Your task to perform on an android device: Open the phone app and click the voicemail tab. Image 0: 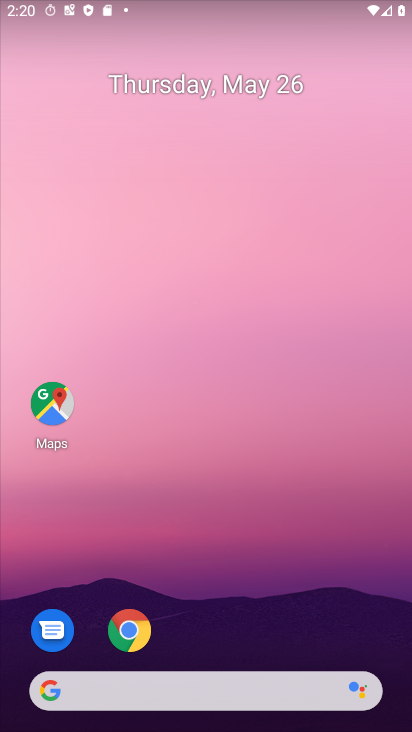
Step 0: drag from (231, 601) to (242, 198)
Your task to perform on an android device: Open the phone app and click the voicemail tab. Image 1: 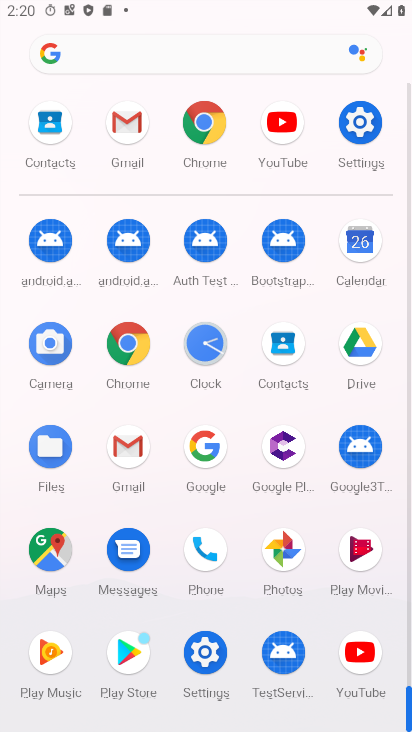
Step 1: click (208, 562)
Your task to perform on an android device: Open the phone app and click the voicemail tab. Image 2: 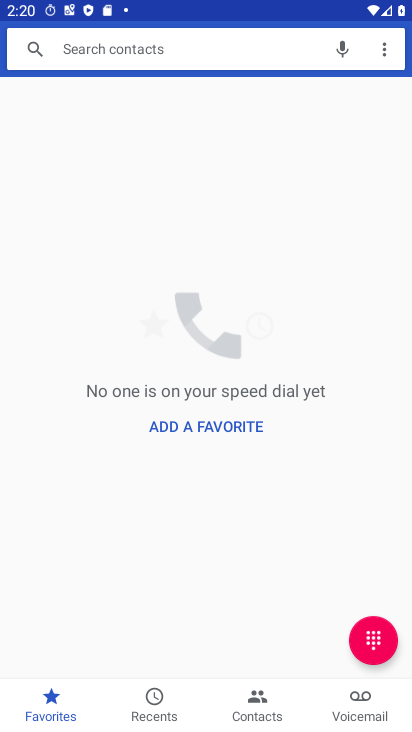
Step 2: click (337, 719)
Your task to perform on an android device: Open the phone app and click the voicemail tab. Image 3: 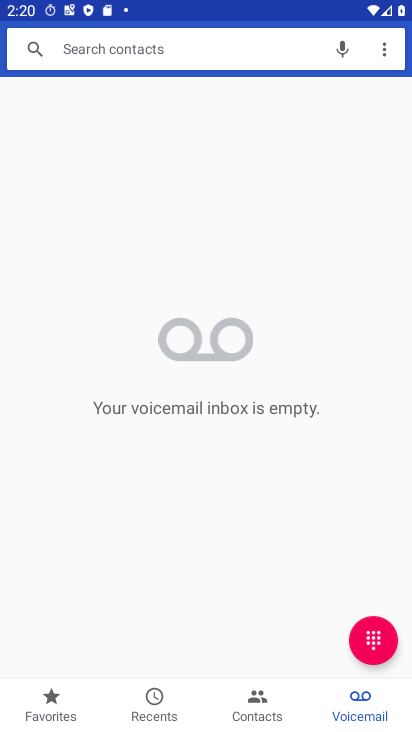
Step 3: task complete